Your task to perform on an android device: uninstall "Duolingo: language lessons" Image 0: 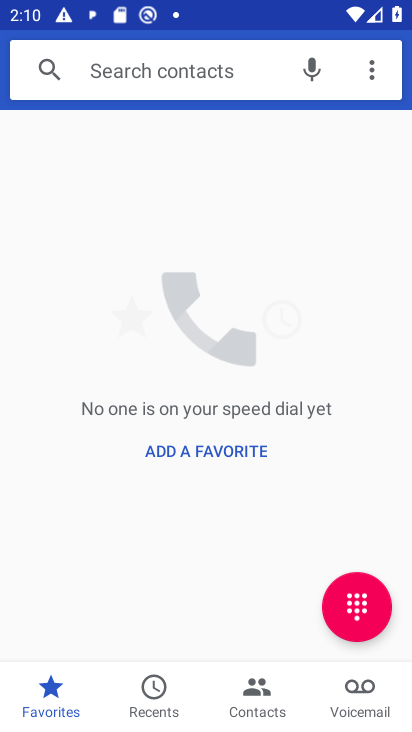
Step 0: press home button
Your task to perform on an android device: uninstall "Duolingo: language lessons" Image 1: 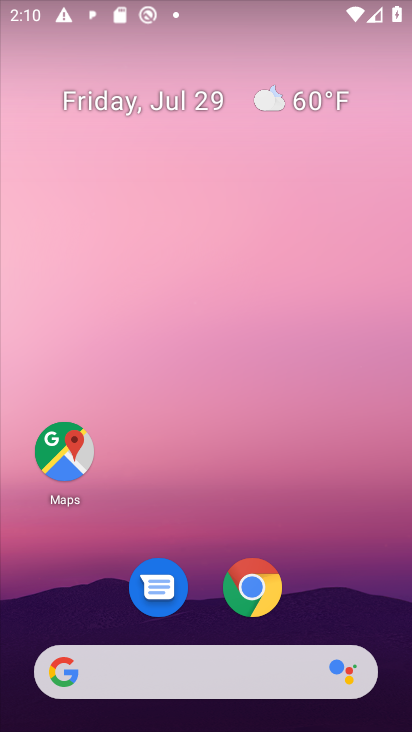
Step 1: drag from (217, 715) to (258, 7)
Your task to perform on an android device: uninstall "Duolingo: language lessons" Image 2: 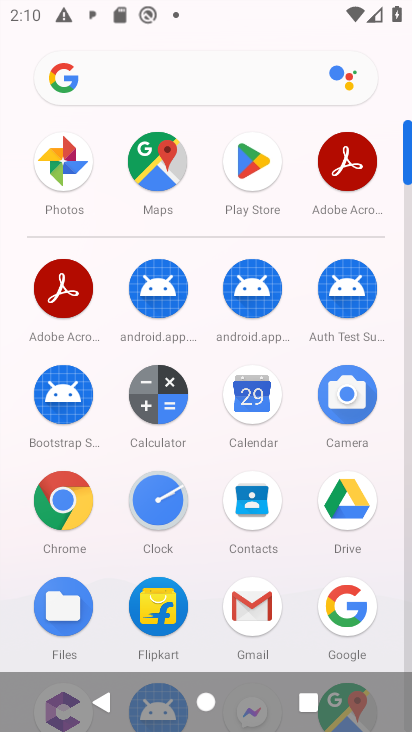
Step 2: click (227, 163)
Your task to perform on an android device: uninstall "Duolingo: language lessons" Image 3: 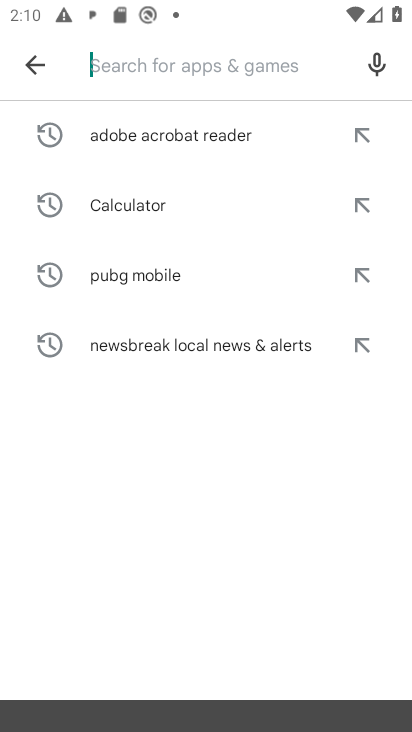
Step 3: click (227, 163)
Your task to perform on an android device: uninstall "Duolingo: language lessons" Image 4: 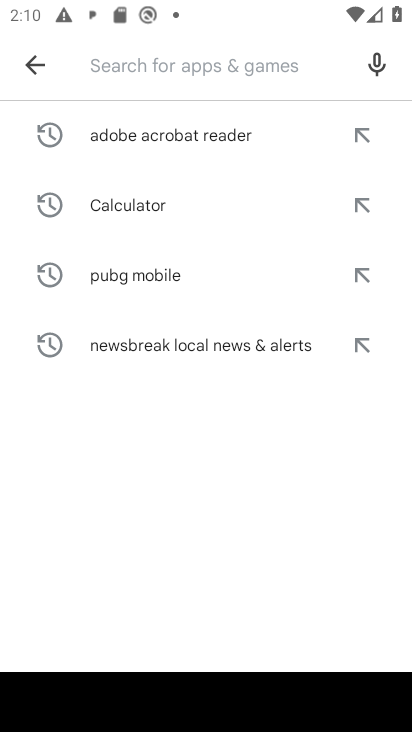
Step 4: click (227, 163)
Your task to perform on an android device: uninstall "Duolingo: language lessons" Image 5: 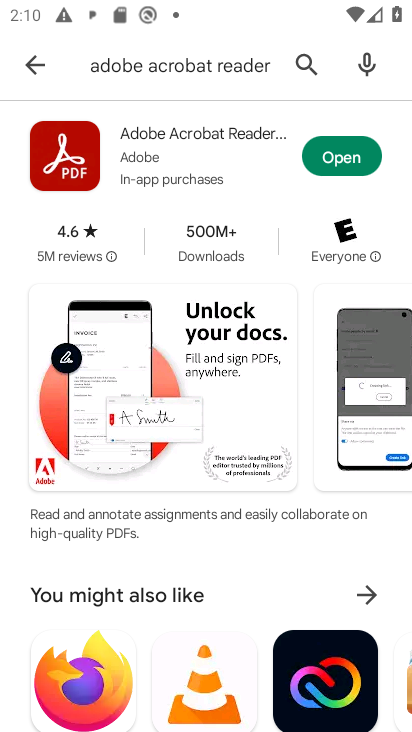
Step 5: click (312, 63)
Your task to perform on an android device: uninstall "Duolingo: language lessons" Image 6: 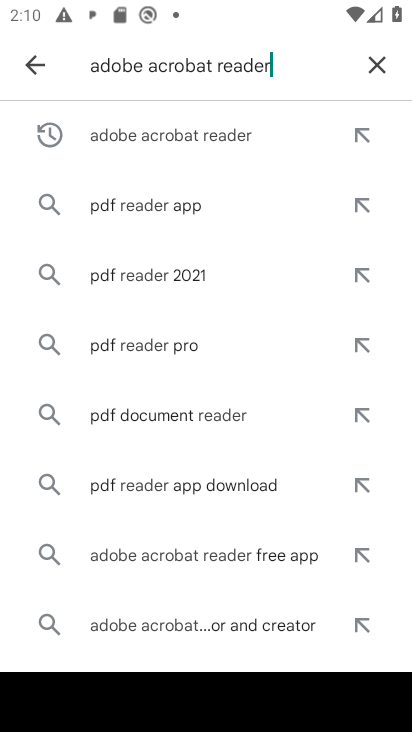
Step 6: click (386, 72)
Your task to perform on an android device: uninstall "Duolingo: language lessons" Image 7: 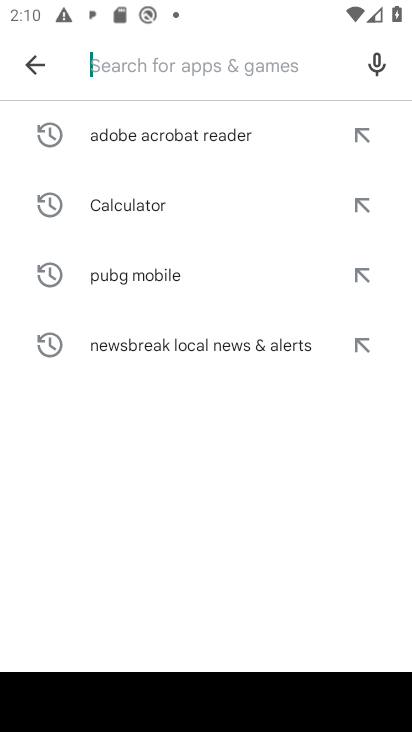
Step 7: type "Duolingo: language lessons"
Your task to perform on an android device: uninstall "Duolingo: language lessons" Image 8: 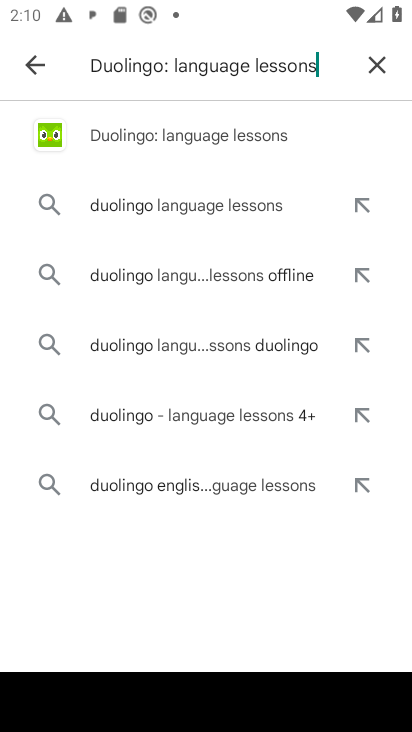
Step 8: click (250, 134)
Your task to perform on an android device: uninstall "Duolingo: language lessons" Image 9: 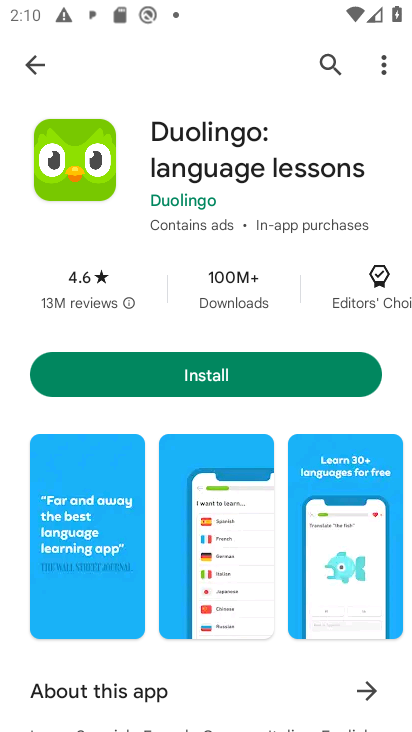
Step 9: task complete